Your task to perform on an android device: clear history in the chrome app Image 0: 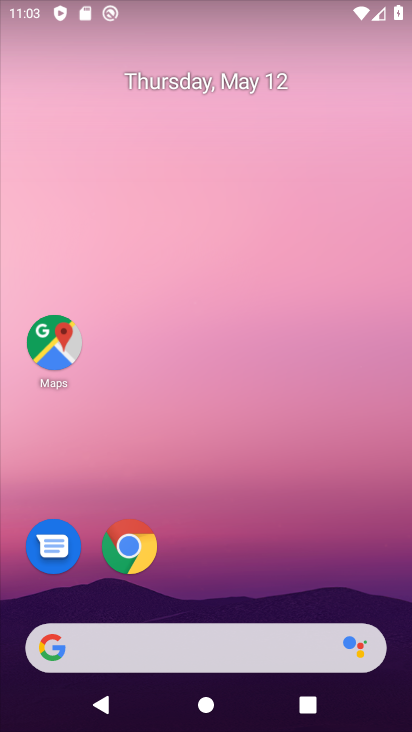
Step 0: click (127, 548)
Your task to perform on an android device: clear history in the chrome app Image 1: 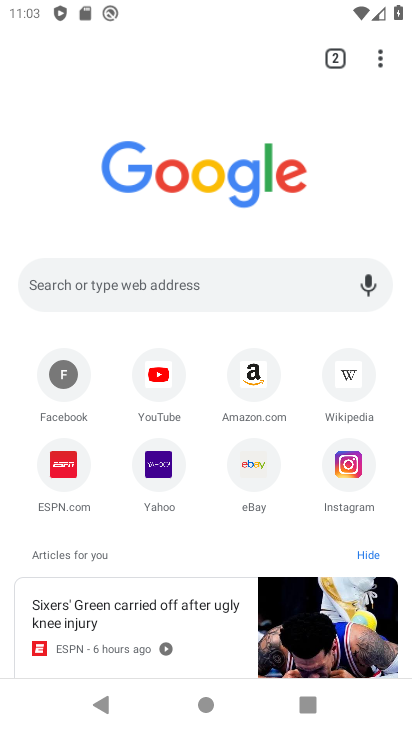
Step 1: click (380, 67)
Your task to perform on an android device: clear history in the chrome app Image 2: 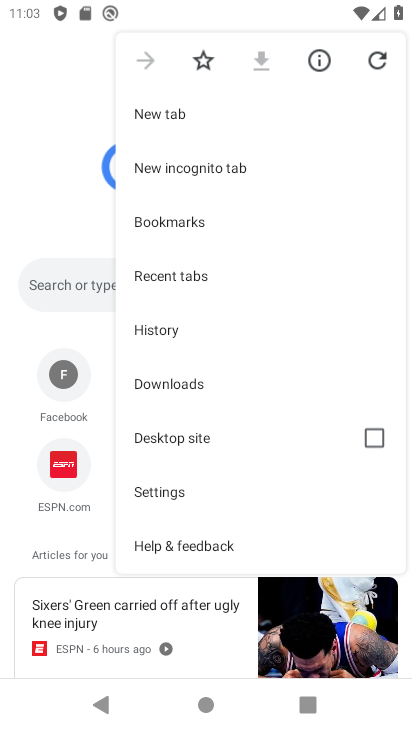
Step 2: click (149, 331)
Your task to perform on an android device: clear history in the chrome app Image 3: 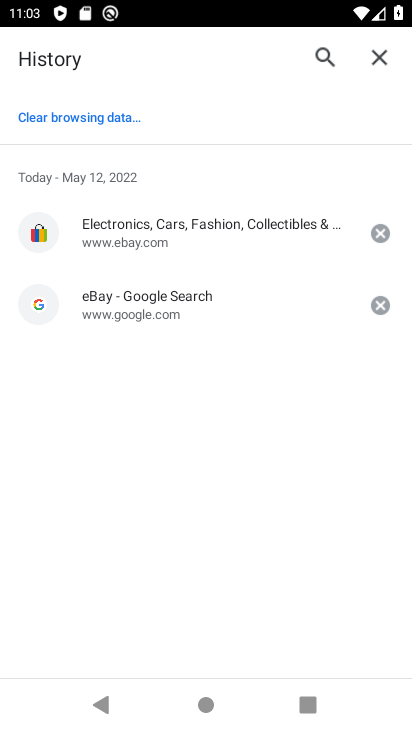
Step 3: click (79, 118)
Your task to perform on an android device: clear history in the chrome app Image 4: 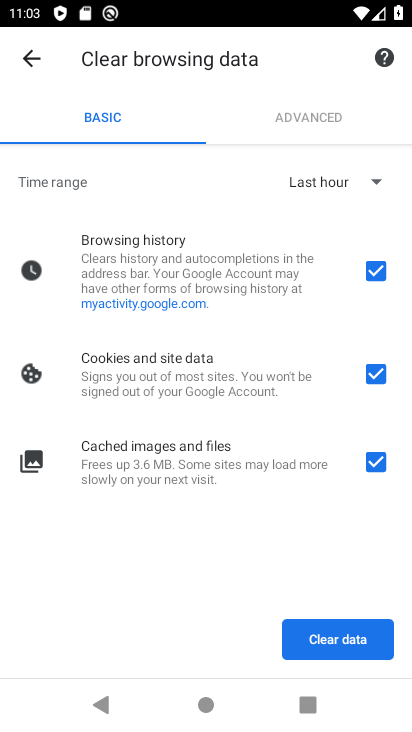
Step 4: click (373, 457)
Your task to perform on an android device: clear history in the chrome app Image 5: 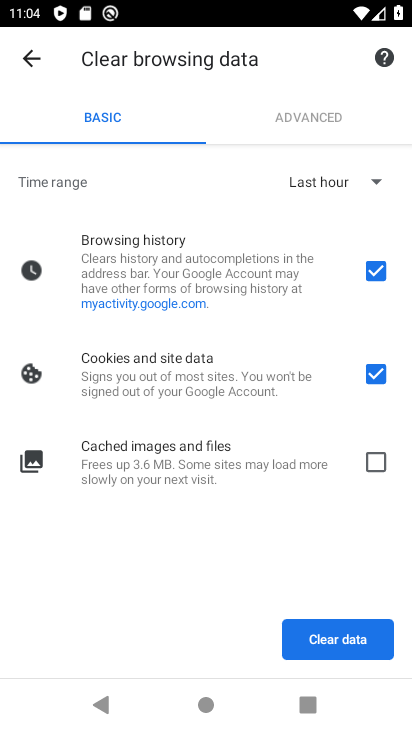
Step 5: click (374, 373)
Your task to perform on an android device: clear history in the chrome app Image 6: 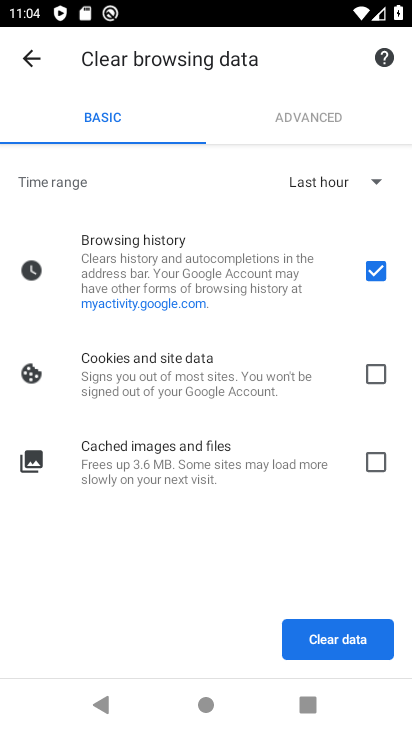
Step 6: click (350, 637)
Your task to perform on an android device: clear history in the chrome app Image 7: 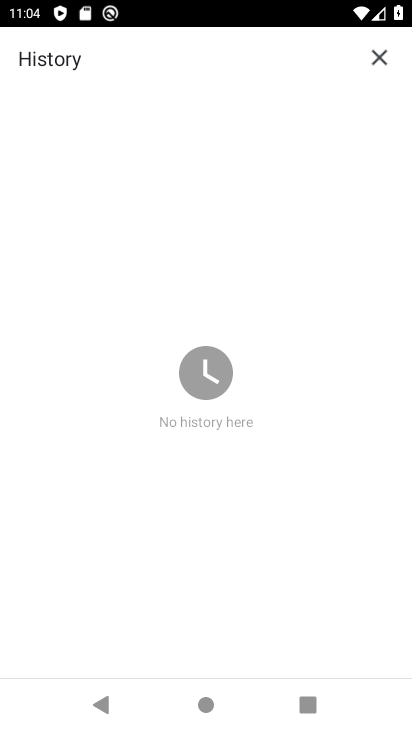
Step 7: task complete